Your task to perform on an android device: Open Youtube and go to the subscriptions tab Image 0: 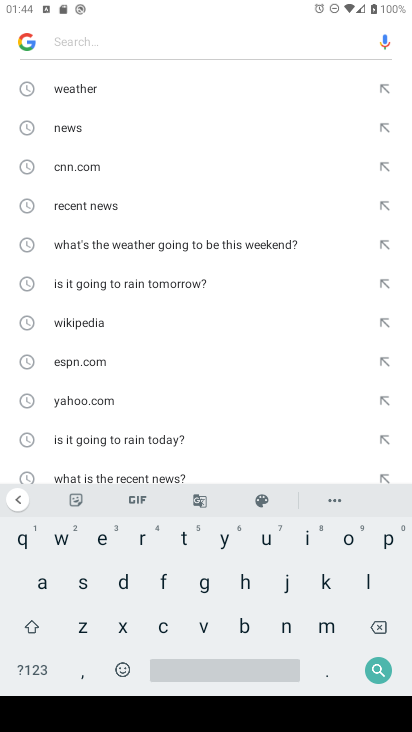
Step 0: click (73, 326)
Your task to perform on an android device: Open Youtube and go to the subscriptions tab Image 1: 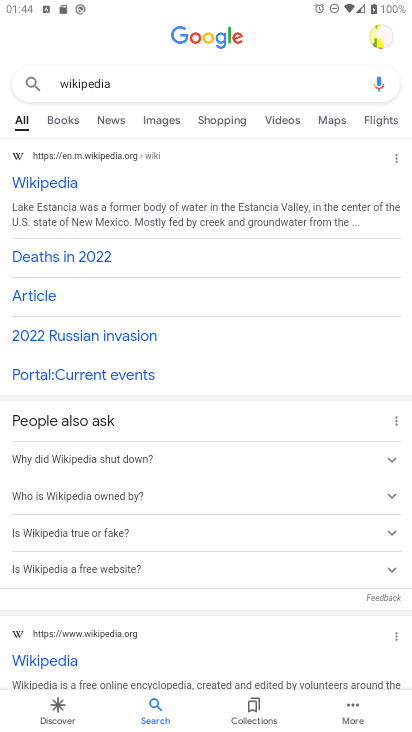
Step 1: click (30, 194)
Your task to perform on an android device: Open Youtube and go to the subscriptions tab Image 2: 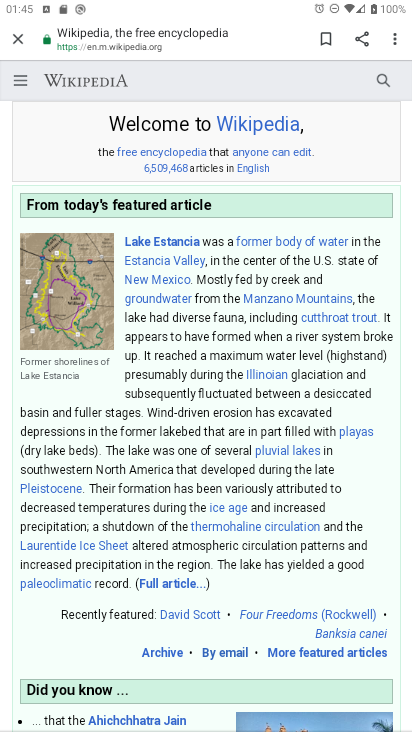
Step 2: press home button
Your task to perform on an android device: Open Youtube and go to the subscriptions tab Image 3: 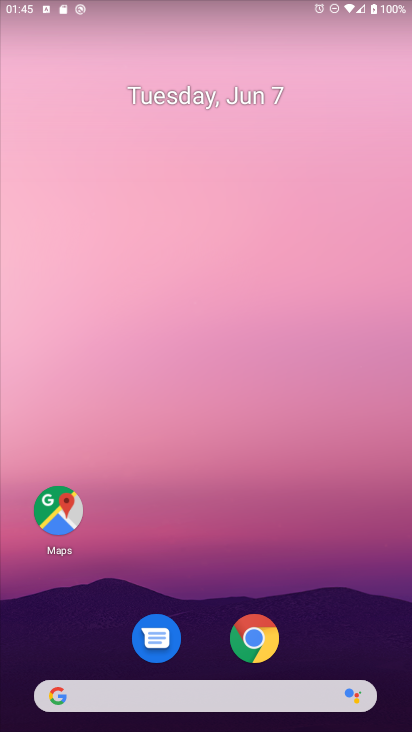
Step 3: drag from (211, 404) to (216, 149)
Your task to perform on an android device: Open Youtube and go to the subscriptions tab Image 4: 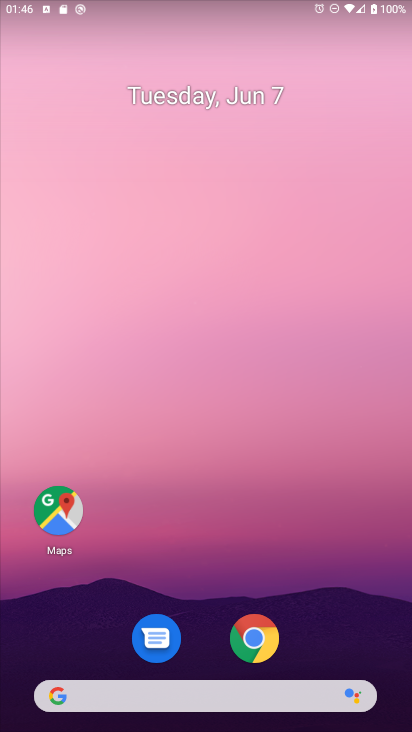
Step 4: drag from (228, 707) to (212, 193)
Your task to perform on an android device: Open Youtube and go to the subscriptions tab Image 5: 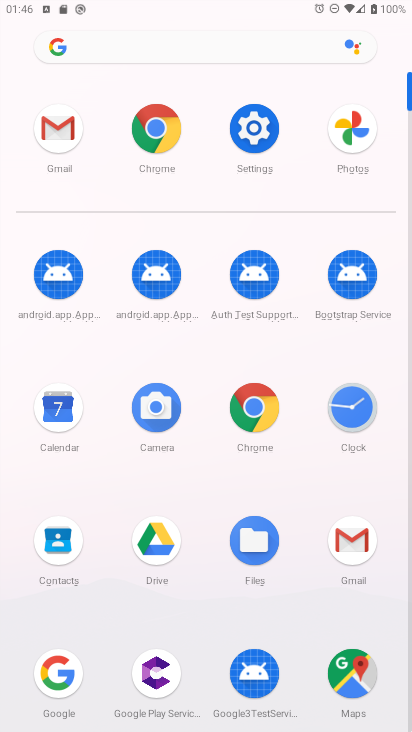
Step 5: drag from (185, 588) to (176, 466)
Your task to perform on an android device: Open Youtube and go to the subscriptions tab Image 6: 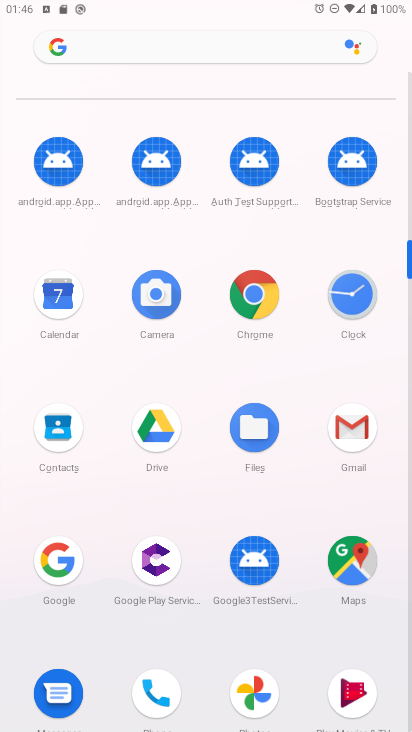
Step 6: drag from (205, 606) to (179, 443)
Your task to perform on an android device: Open Youtube and go to the subscriptions tab Image 7: 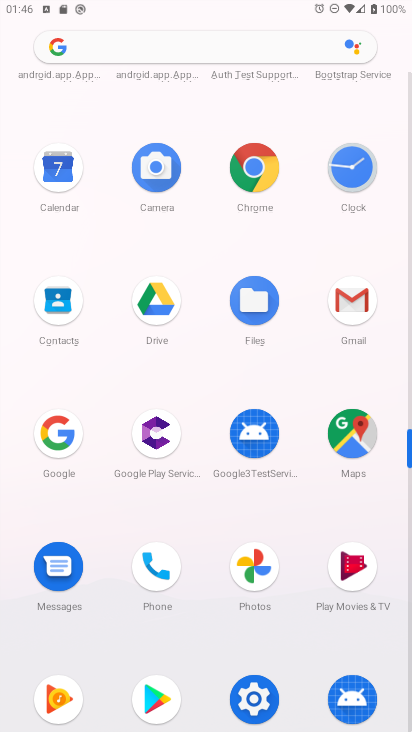
Step 7: drag from (211, 659) to (200, 550)
Your task to perform on an android device: Open Youtube and go to the subscriptions tab Image 8: 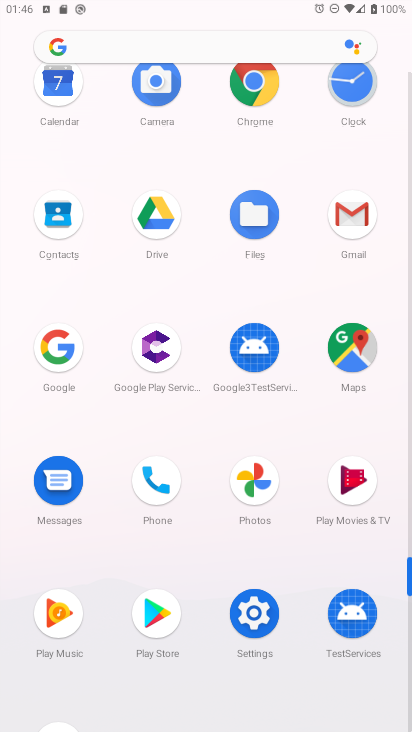
Step 8: drag from (80, 543) to (80, 457)
Your task to perform on an android device: Open Youtube and go to the subscriptions tab Image 9: 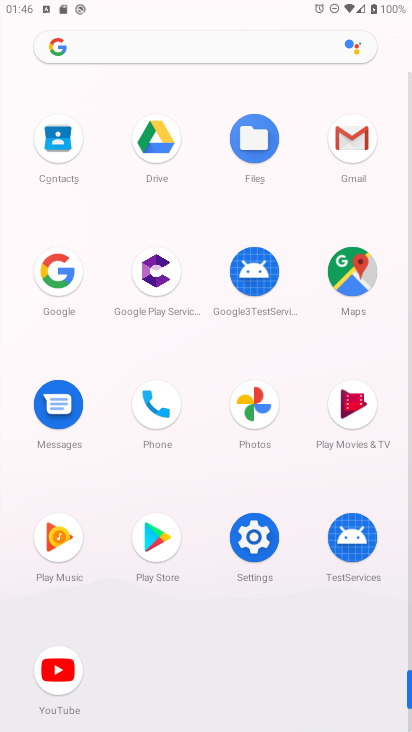
Step 9: click (65, 674)
Your task to perform on an android device: Open Youtube and go to the subscriptions tab Image 10: 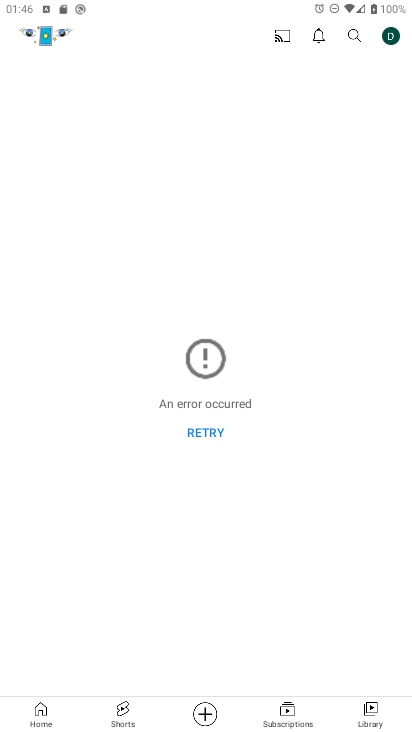
Step 10: click (281, 721)
Your task to perform on an android device: Open Youtube and go to the subscriptions tab Image 11: 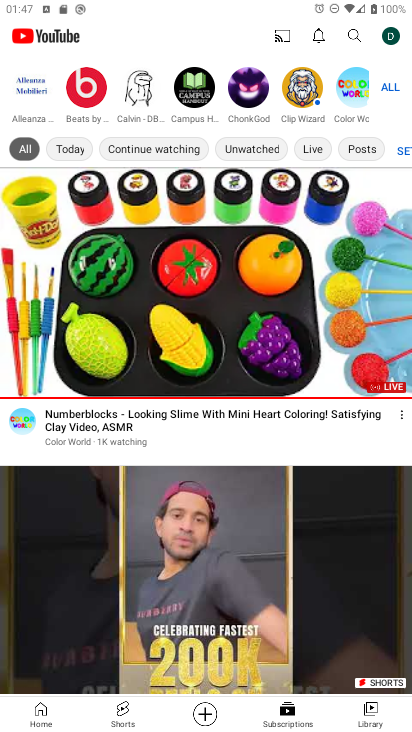
Step 11: task complete